Your task to perform on an android device: Go to Android settings Image 0: 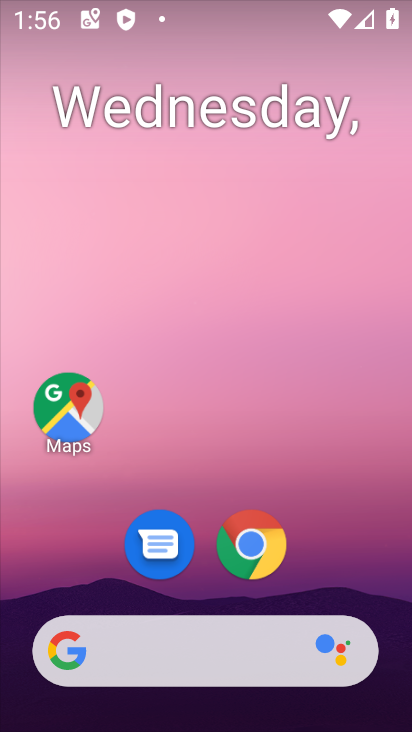
Step 0: drag from (365, 598) to (329, 111)
Your task to perform on an android device: Go to Android settings Image 1: 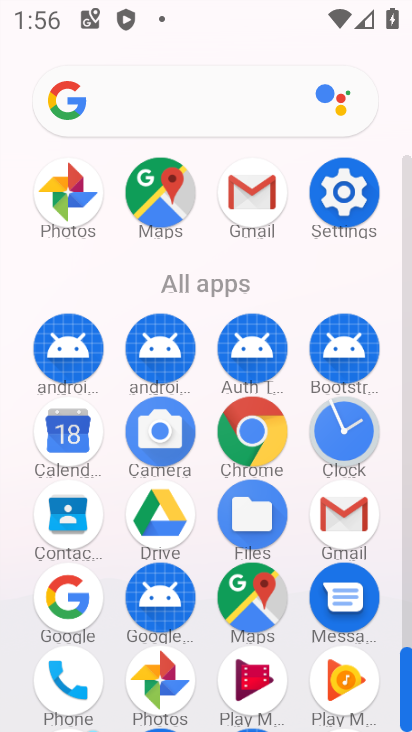
Step 1: click (271, 197)
Your task to perform on an android device: Go to Android settings Image 2: 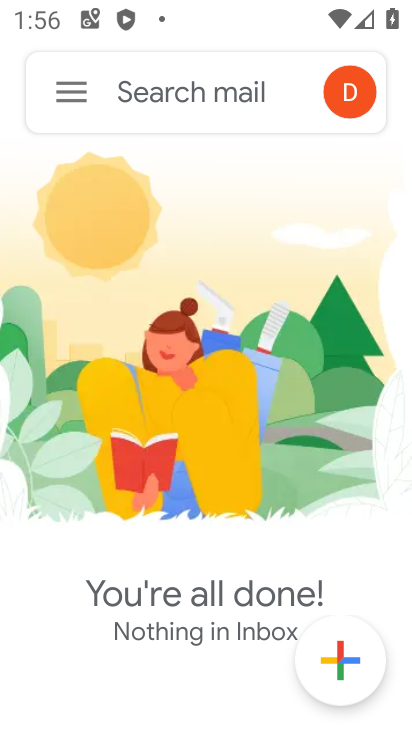
Step 2: press home button
Your task to perform on an android device: Go to Android settings Image 3: 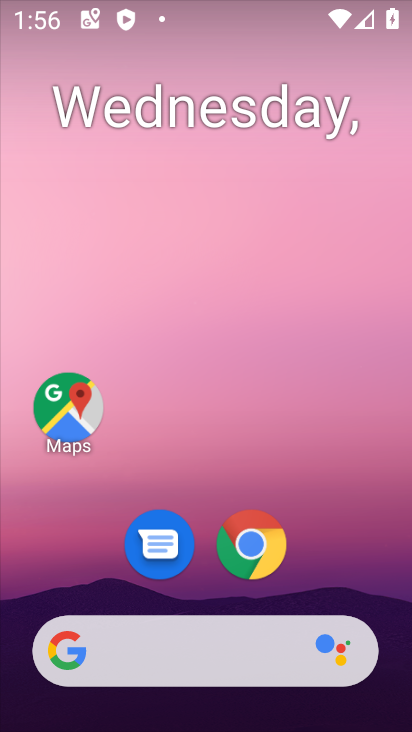
Step 3: drag from (284, 436) to (297, 86)
Your task to perform on an android device: Go to Android settings Image 4: 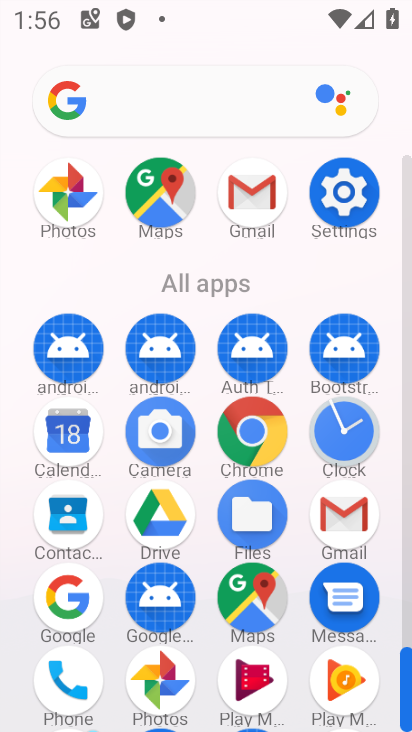
Step 4: click (356, 195)
Your task to perform on an android device: Go to Android settings Image 5: 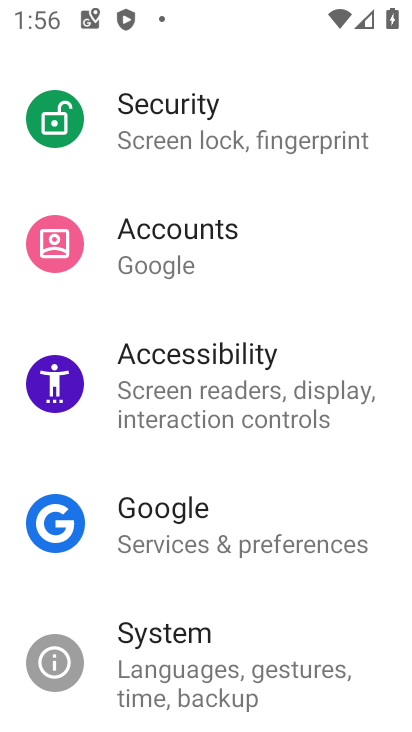
Step 5: task complete